Your task to perform on an android device: clear history in the chrome app Image 0: 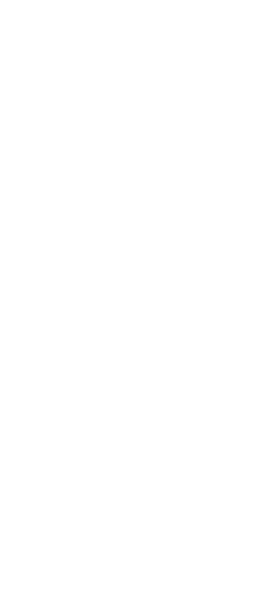
Step 0: drag from (214, 537) to (147, 162)
Your task to perform on an android device: clear history in the chrome app Image 1: 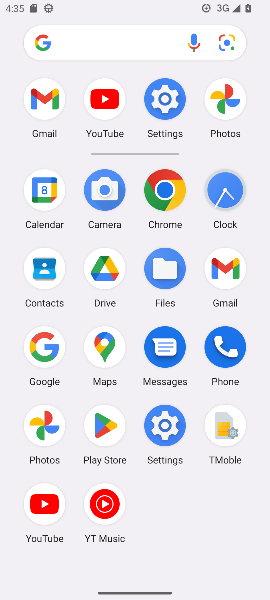
Step 1: click (153, 194)
Your task to perform on an android device: clear history in the chrome app Image 2: 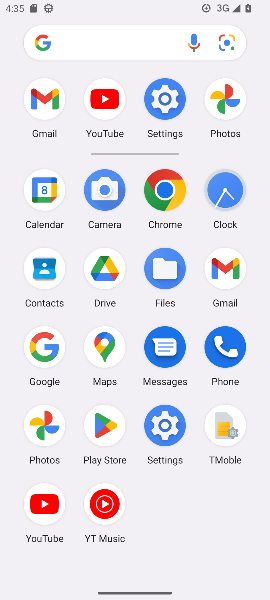
Step 2: click (153, 194)
Your task to perform on an android device: clear history in the chrome app Image 3: 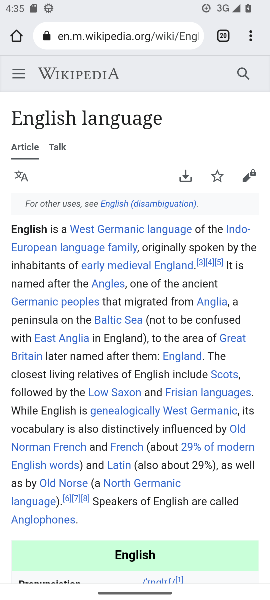
Step 3: click (160, 191)
Your task to perform on an android device: clear history in the chrome app Image 4: 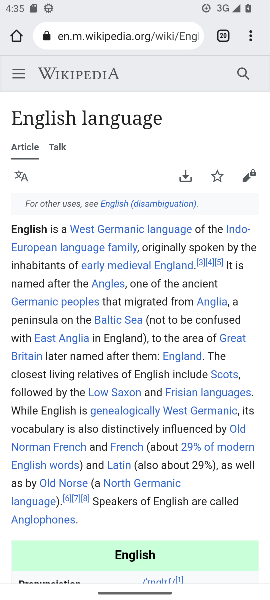
Step 4: drag from (251, 34) to (140, 145)
Your task to perform on an android device: clear history in the chrome app Image 5: 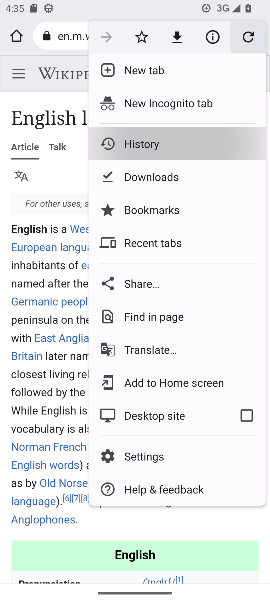
Step 5: click (144, 143)
Your task to perform on an android device: clear history in the chrome app Image 6: 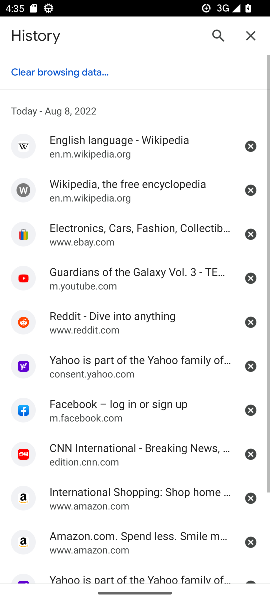
Step 6: click (69, 64)
Your task to perform on an android device: clear history in the chrome app Image 7: 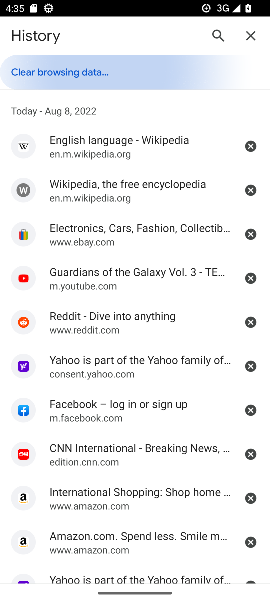
Step 7: click (59, 73)
Your task to perform on an android device: clear history in the chrome app Image 8: 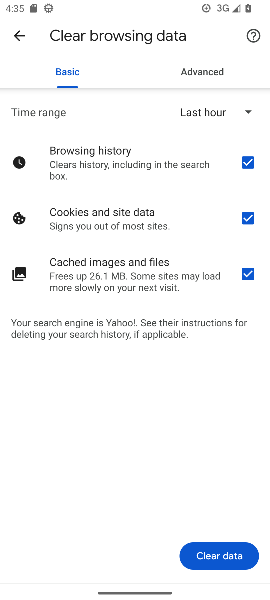
Step 8: click (224, 557)
Your task to perform on an android device: clear history in the chrome app Image 9: 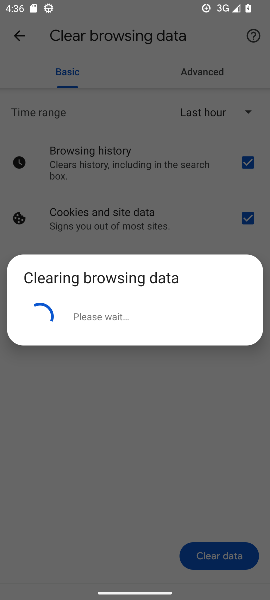
Step 9: task complete